Your task to perform on an android device: Open calendar and show me the third week of next month Image 0: 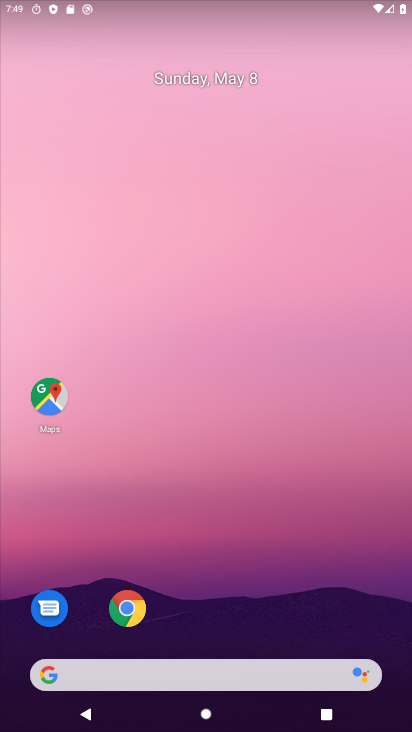
Step 0: drag from (268, 589) to (276, 111)
Your task to perform on an android device: Open calendar and show me the third week of next month Image 1: 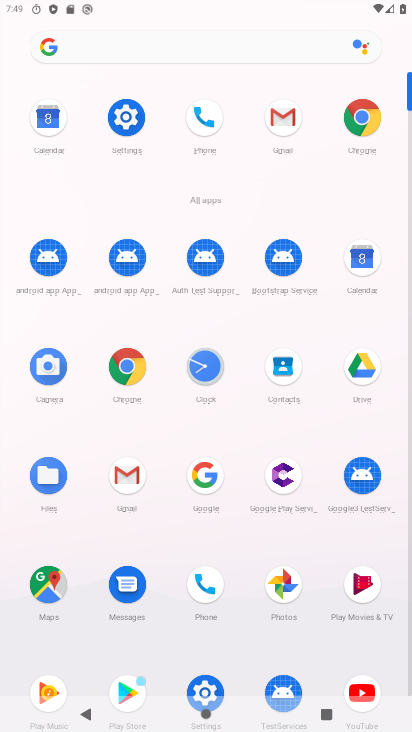
Step 1: click (368, 264)
Your task to perform on an android device: Open calendar and show me the third week of next month Image 2: 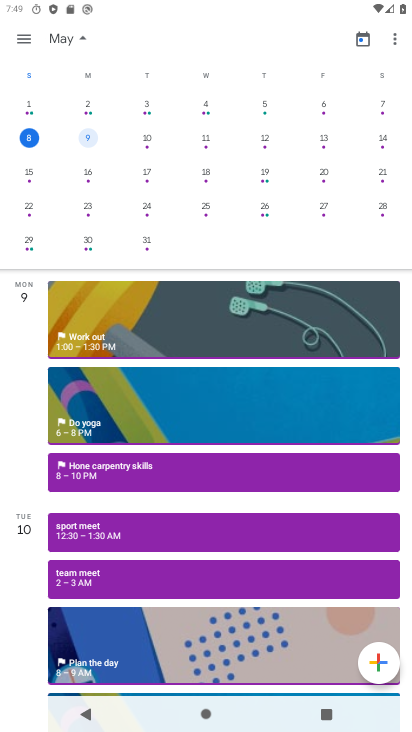
Step 2: drag from (203, 182) to (20, 177)
Your task to perform on an android device: Open calendar and show me the third week of next month Image 3: 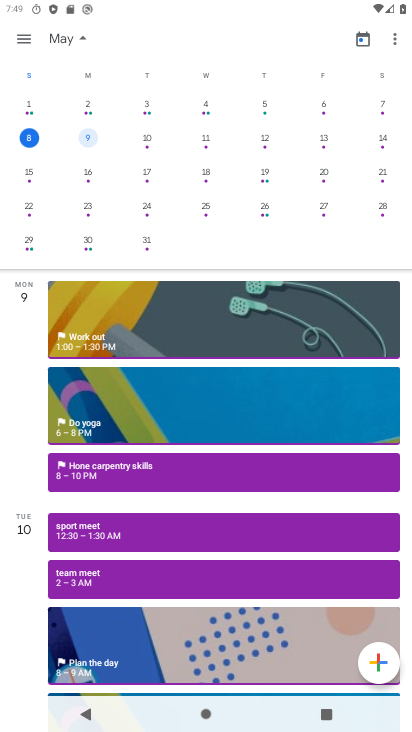
Step 3: drag from (357, 183) to (1, 202)
Your task to perform on an android device: Open calendar and show me the third week of next month Image 4: 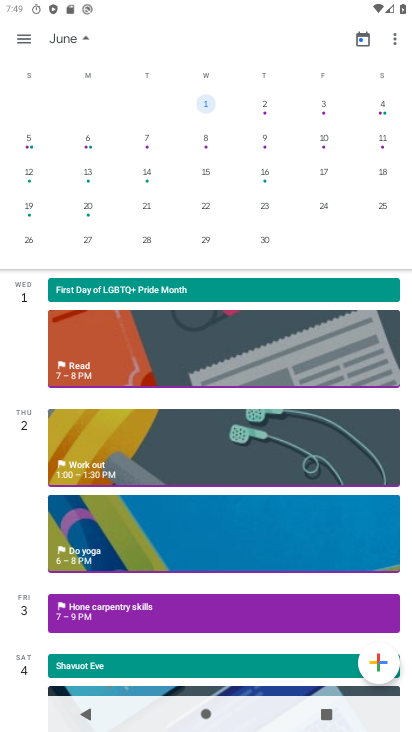
Step 4: click (28, 181)
Your task to perform on an android device: Open calendar and show me the third week of next month Image 5: 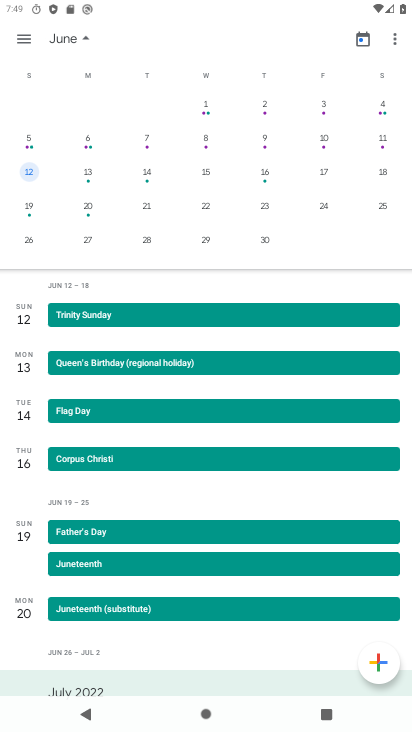
Step 5: click (95, 180)
Your task to perform on an android device: Open calendar and show me the third week of next month Image 6: 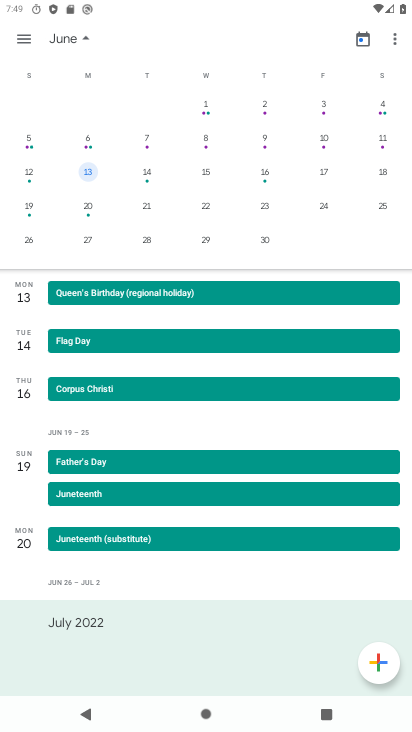
Step 6: click (153, 173)
Your task to perform on an android device: Open calendar and show me the third week of next month Image 7: 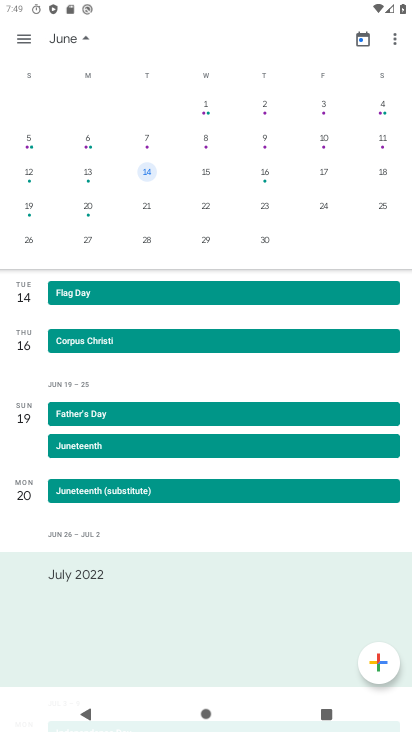
Step 7: click (264, 179)
Your task to perform on an android device: Open calendar and show me the third week of next month Image 8: 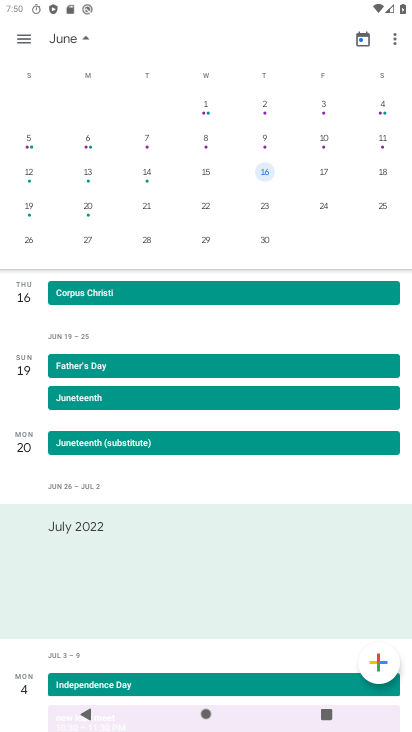
Step 8: click (315, 180)
Your task to perform on an android device: Open calendar and show me the third week of next month Image 9: 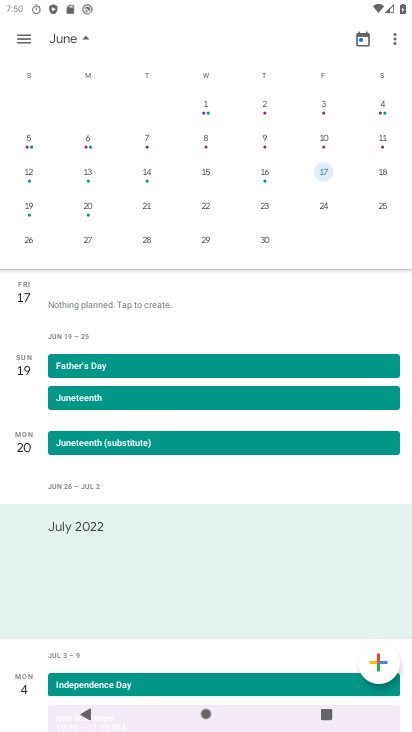
Step 9: click (391, 168)
Your task to perform on an android device: Open calendar and show me the third week of next month Image 10: 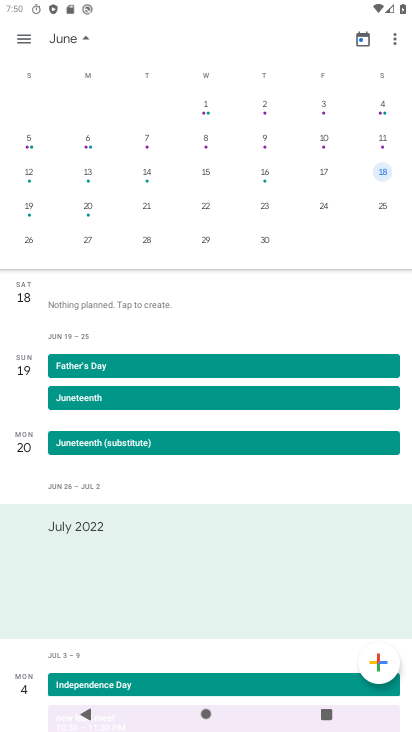
Step 10: task complete